Your task to perform on an android device: open app "Skype" (install if not already installed) Image 0: 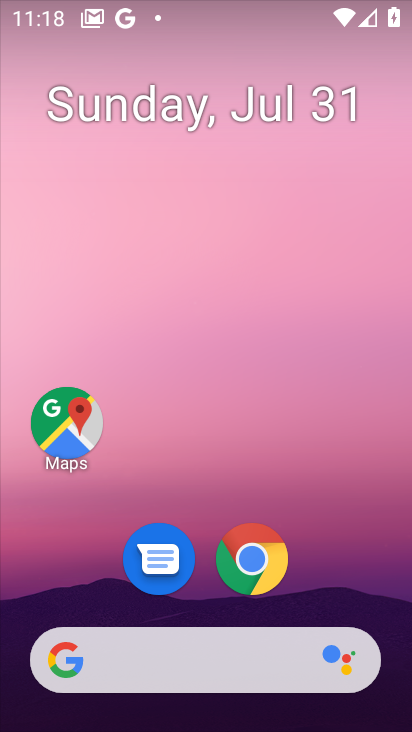
Step 0: drag from (82, 499) to (215, 43)
Your task to perform on an android device: open app "Skype" (install if not already installed) Image 1: 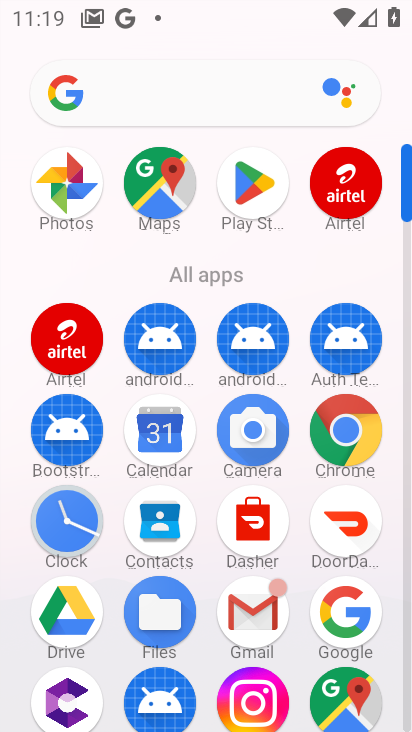
Step 1: drag from (235, 608) to (304, 74)
Your task to perform on an android device: open app "Skype" (install if not already installed) Image 2: 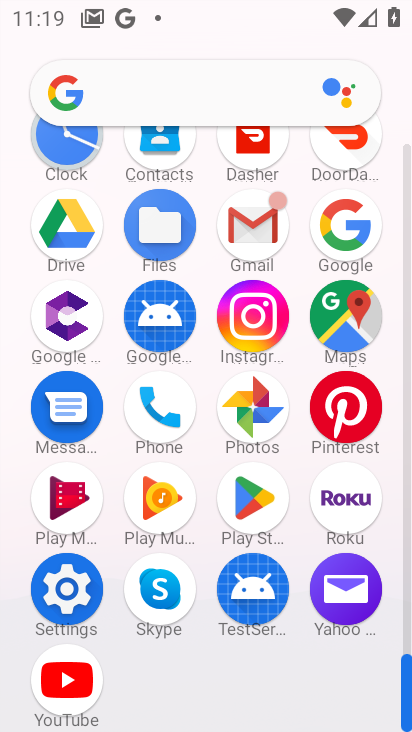
Step 2: click (159, 604)
Your task to perform on an android device: open app "Skype" (install if not already installed) Image 3: 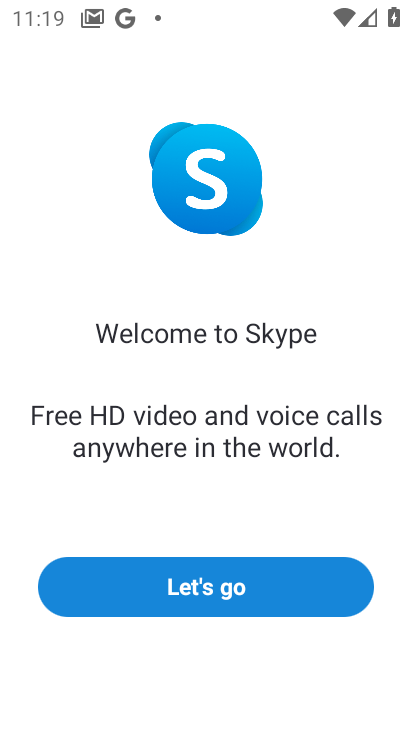
Step 3: task complete